Your task to perform on an android device: turn off wifi Image 0: 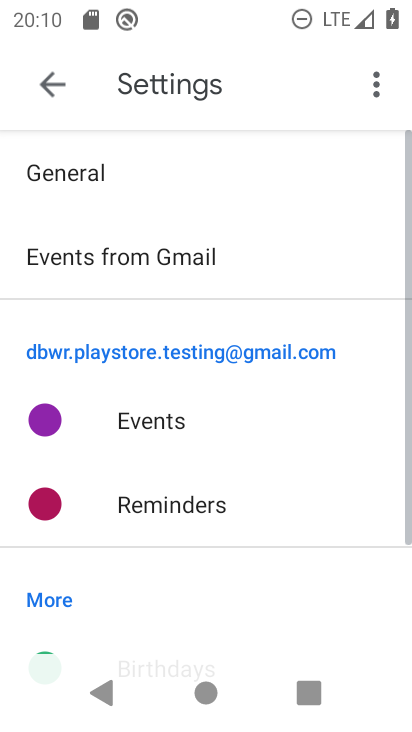
Step 0: press home button
Your task to perform on an android device: turn off wifi Image 1: 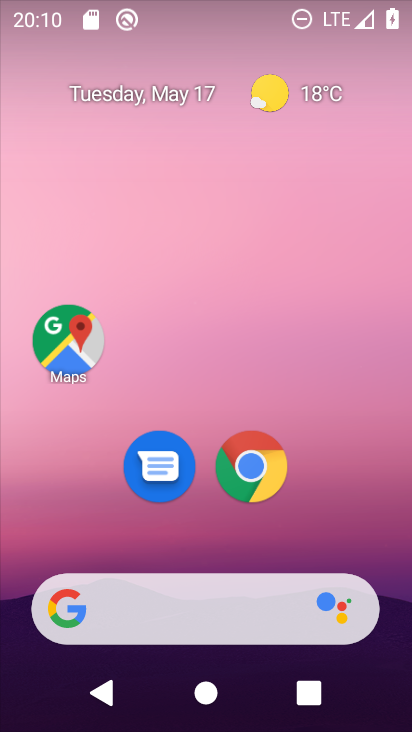
Step 1: drag from (215, 614) to (334, 145)
Your task to perform on an android device: turn off wifi Image 2: 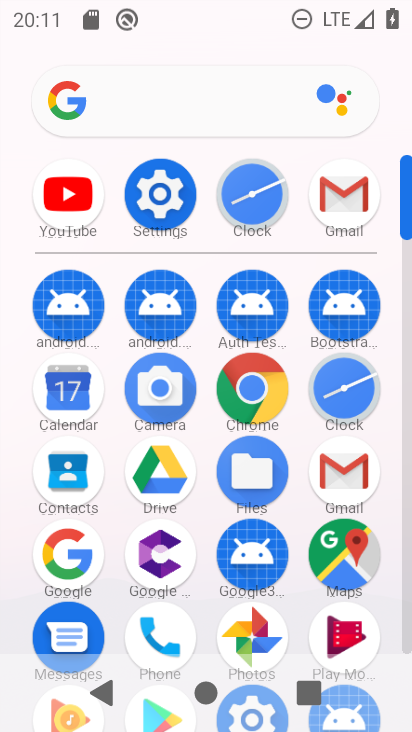
Step 2: click (154, 201)
Your task to perform on an android device: turn off wifi Image 3: 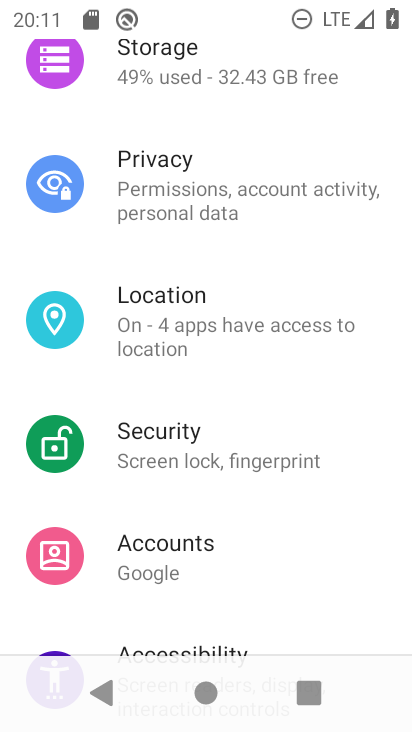
Step 3: drag from (334, 122) to (235, 625)
Your task to perform on an android device: turn off wifi Image 4: 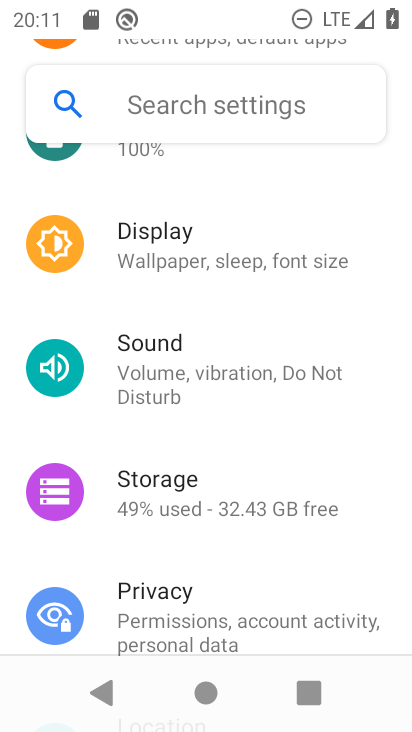
Step 4: drag from (297, 194) to (275, 542)
Your task to perform on an android device: turn off wifi Image 5: 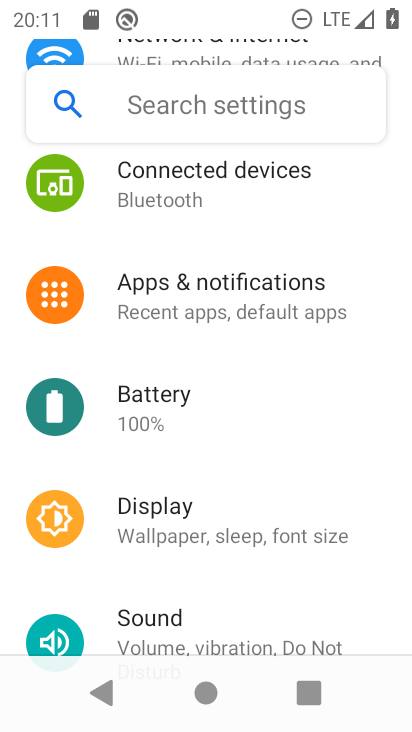
Step 5: drag from (355, 219) to (299, 584)
Your task to perform on an android device: turn off wifi Image 6: 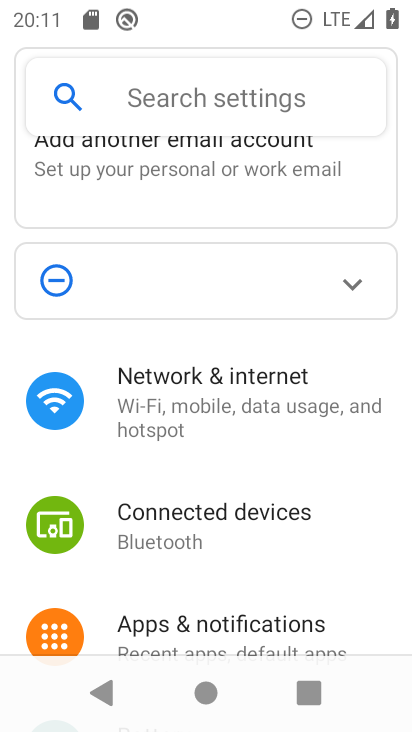
Step 6: click (237, 402)
Your task to perform on an android device: turn off wifi Image 7: 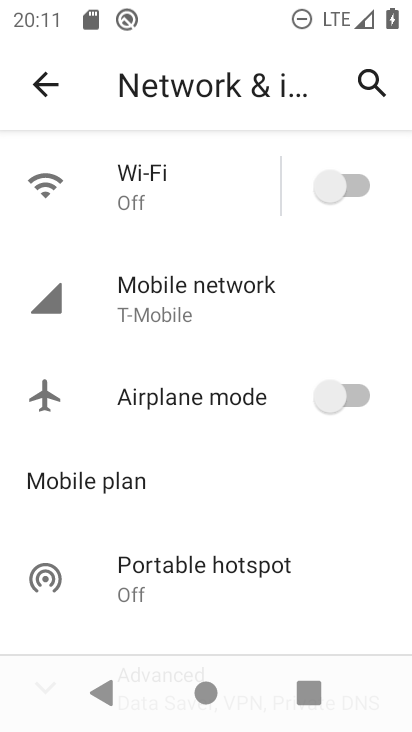
Step 7: task complete